Your task to perform on an android device: Open calendar and show me the first week of next month Image 0: 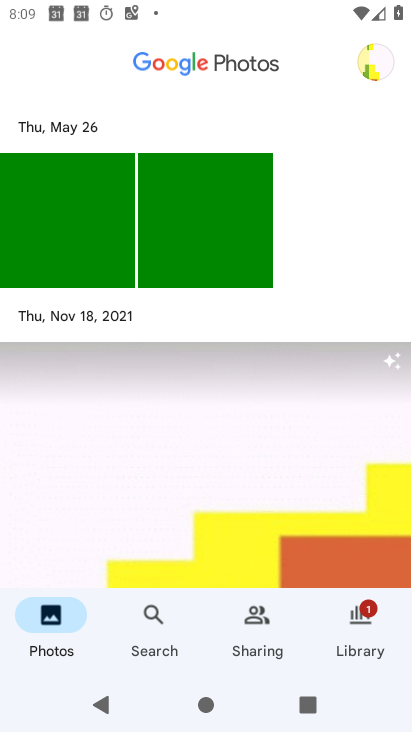
Step 0: press home button
Your task to perform on an android device: Open calendar and show me the first week of next month Image 1: 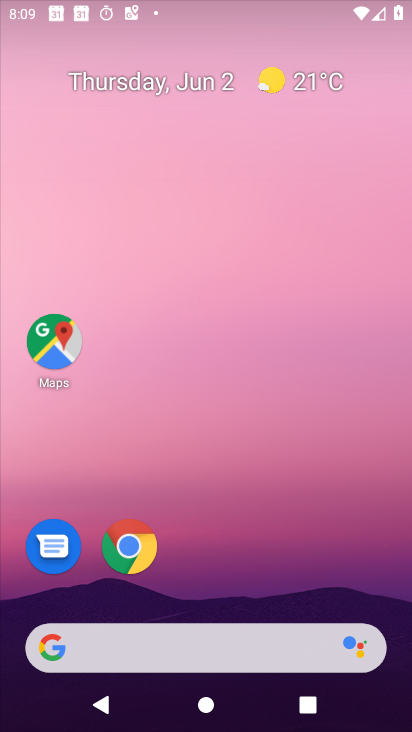
Step 1: drag from (405, 584) to (345, 114)
Your task to perform on an android device: Open calendar and show me the first week of next month Image 2: 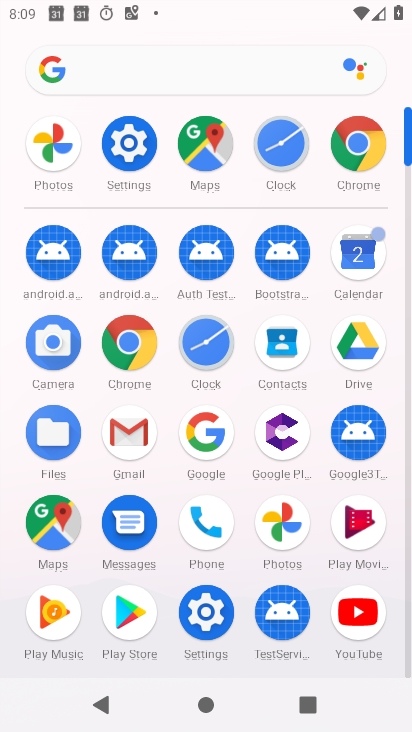
Step 2: click (355, 254)
Your task to perform on an android device: Open calendar and show me the first week of next month Image 3: 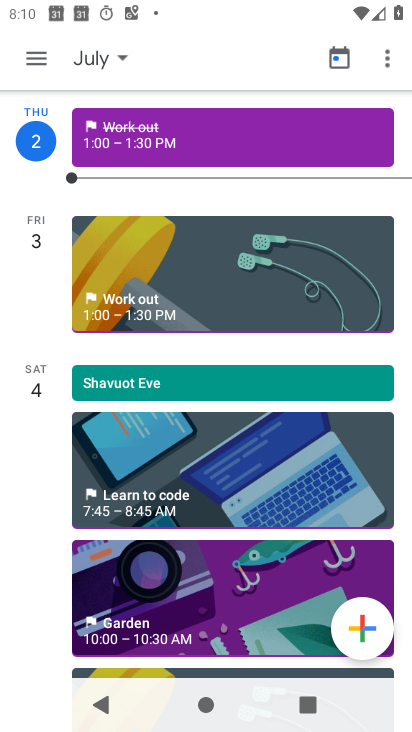
Step 3: click (99, 56)
Your task to perform on an android device: Open calendar and show me the first week of next month Image 4: 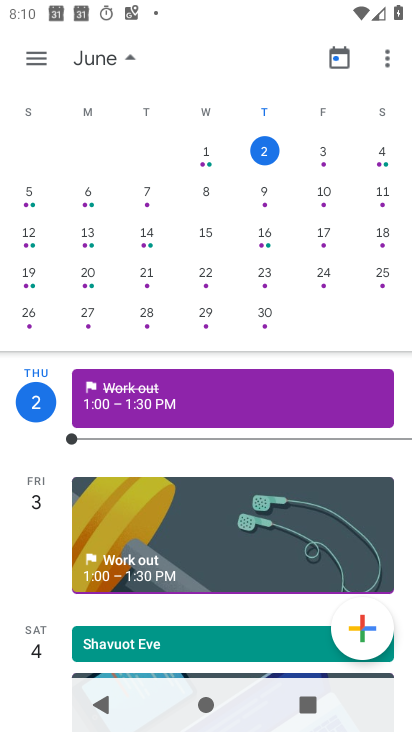
Step 4: click (226, 153)
Your task to perform on an android device: Open calendar and show me the first week of next month Image 5: 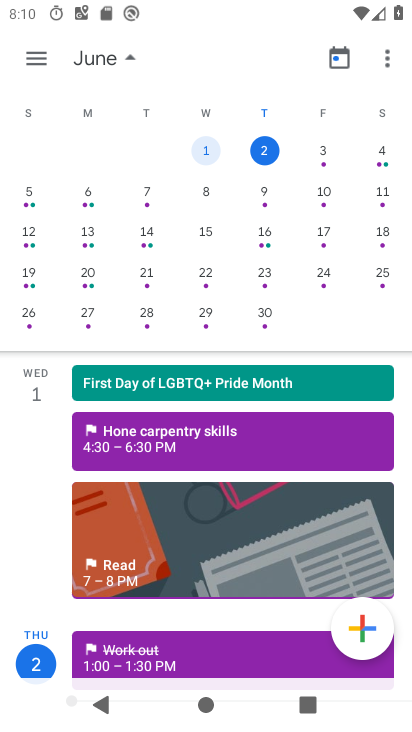
Step 5: task complete